Your task to perform on an android device: install app "Spotify: Music and Podcasts" Image 0: 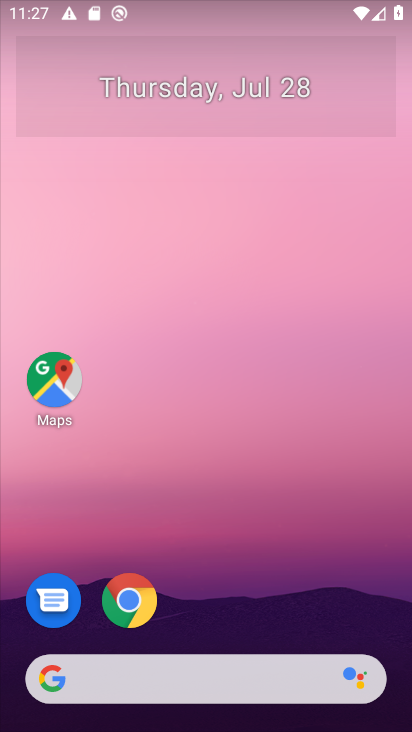
Step 0: drag from (220, 683) to (223, 27)
Your task to perform on an android device: install app "Spotify: Music and Podcasts" Image 1: 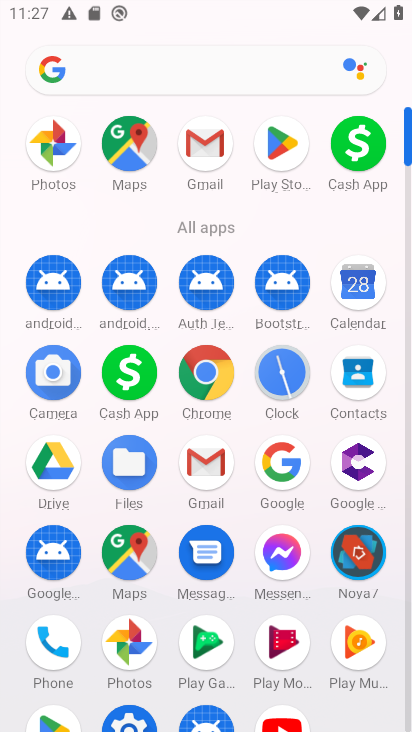
Step 1: click (283, 156)
Your task to perform on an android device: install app "Spotify: Music and Podcasts" Image 2: 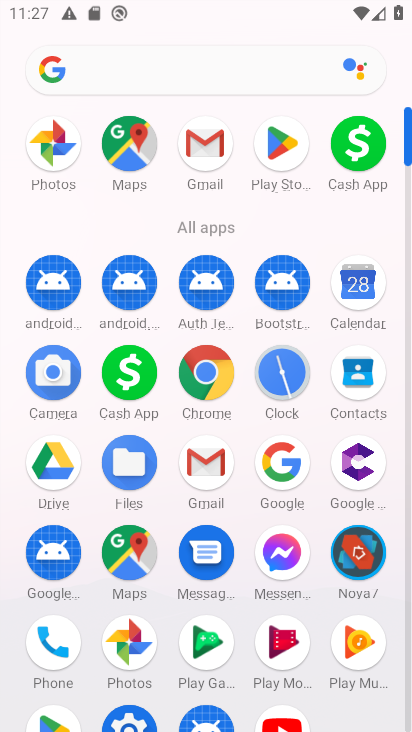
Step 2: click (283, 156)
Your task to perform on an android device: install app "Spotify: Music and Podcasts" Image 3: 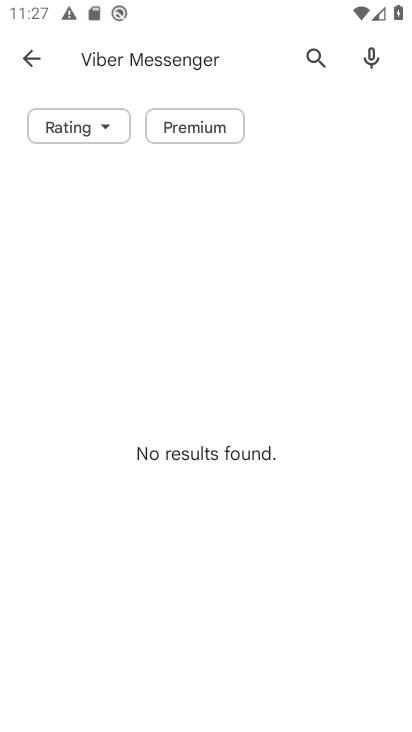
Step 3: click (321, 66)
Your task to perform on an android device: install app "Spotify: Music and Podcasts" Image 4: 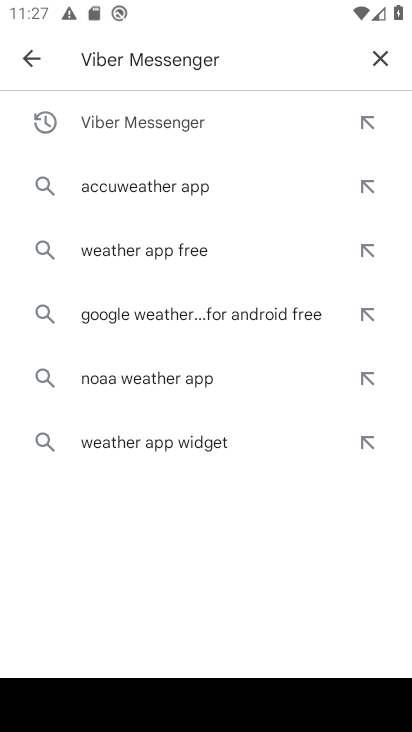
Step 4: click (388, 57)
Your task to perform on an android device: install app "Spotify: Music and Podcasts" Image 5: 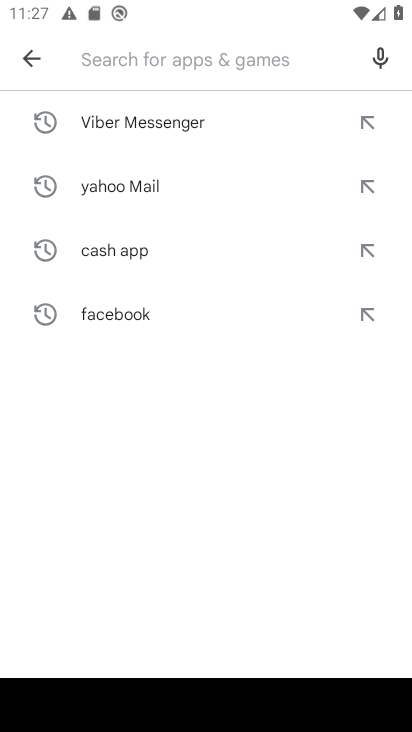
Step 5: type "Spotify: Music and Podcasts"
Your task to perform on an android device: install app "Spotify: Music and Podcasts" Image 6: 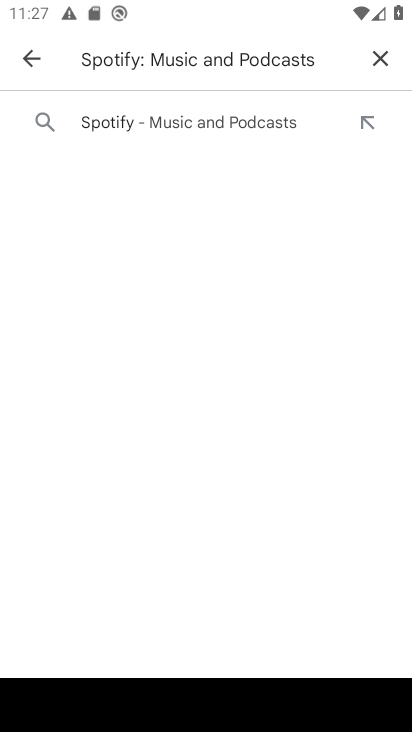
Step 6: press enter
Your task to perform on an android device: install app "Spotify: Music and Podcasts" Image 7: 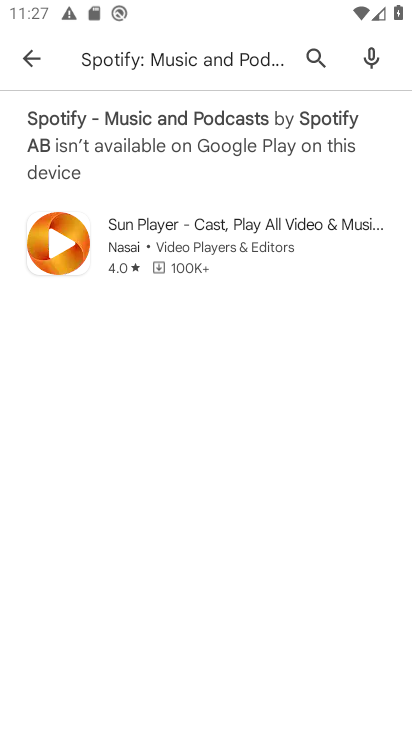
Step 7: task complete